Your task to perform on an android device: Go to Maps Image 0: 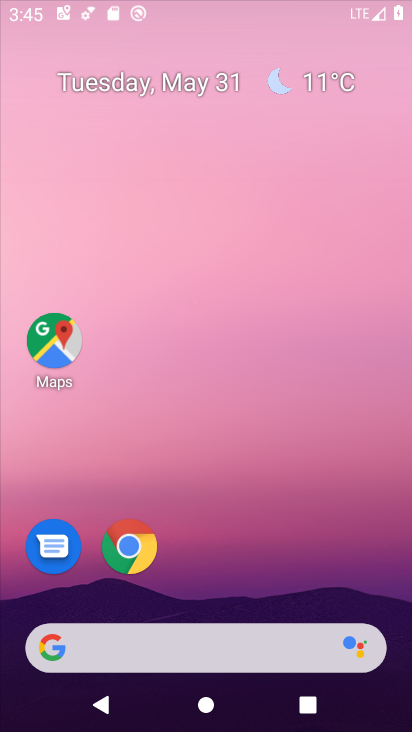
Step 0: drag from (293, 478) to (225, 27)
Your task to perform on an android device: Go to Maps Image 1: 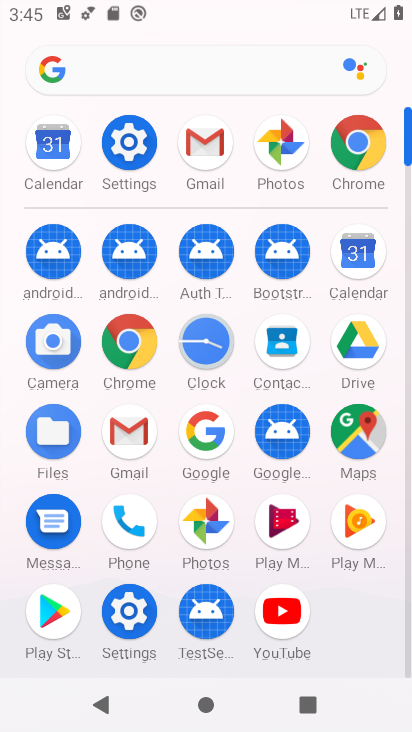
Step 1: click (359, 448)
Your task to perform on an android device: Go to Maps Image 2: 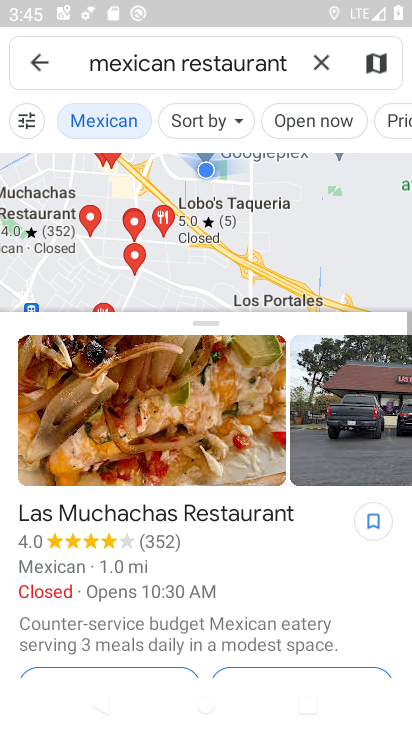
Step 2: task complete